Your task to perform on an android device: set default search engine in the chrome app Image 0: 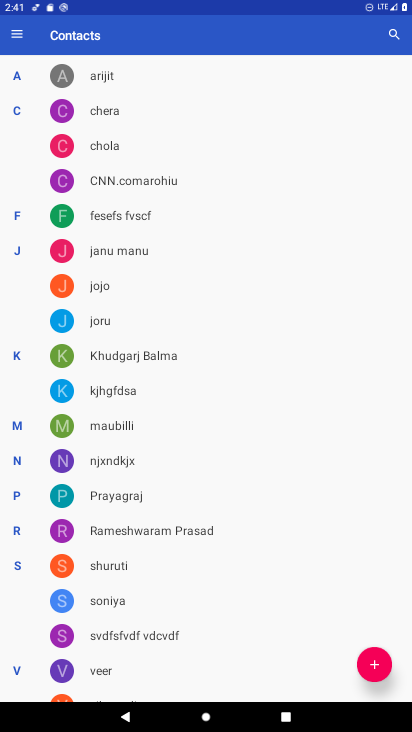
Step 0: press home button
Your task to perform on an android device: set default search engine in the chrome app Image 1: 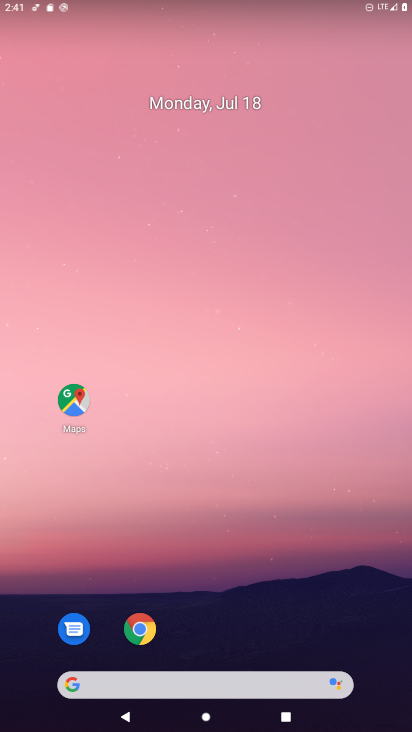
Step 1: drag from (172, 519) to (190, 264)
Your task to perform on an android device: set default search engine in the chrome app Image 2: 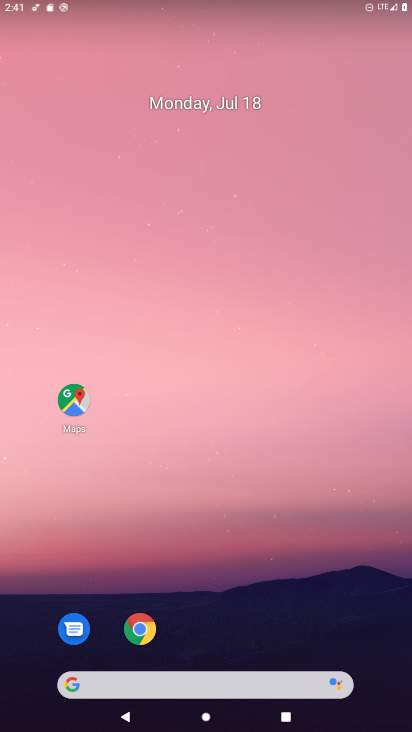
Step 2: drag from (205, 668) to (180, 308)
Your task to perform on an android device: set default search engine in the chrome app Image 3: 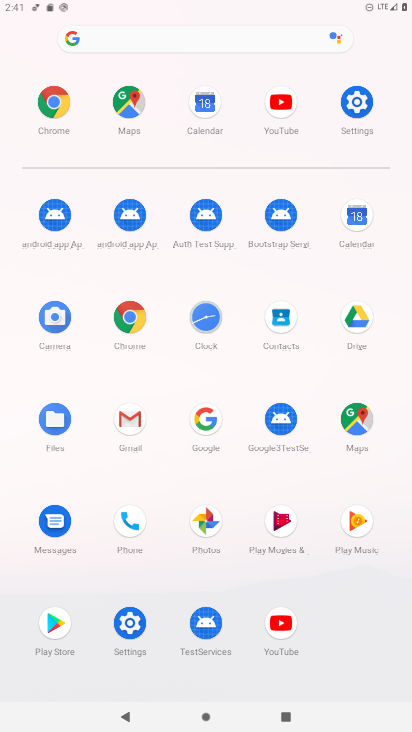
Step 3: click (123, 321)
Your task to perform on an android device: set default search engine in the chrome app Image 4: 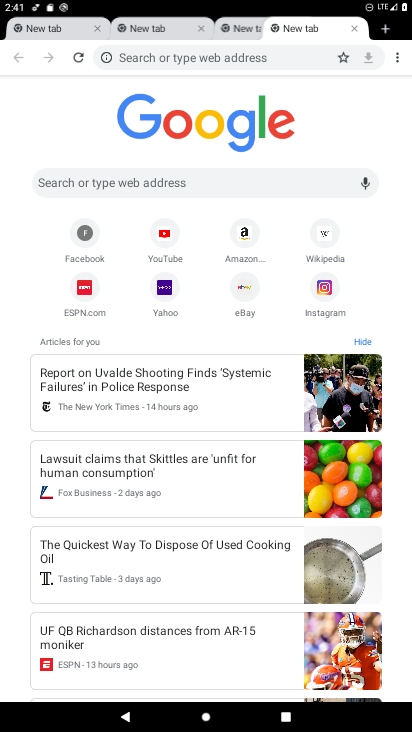
Step 4: click (394, 59)
Your task to perform on an android device: set default search engine in the chrome app Image 5: 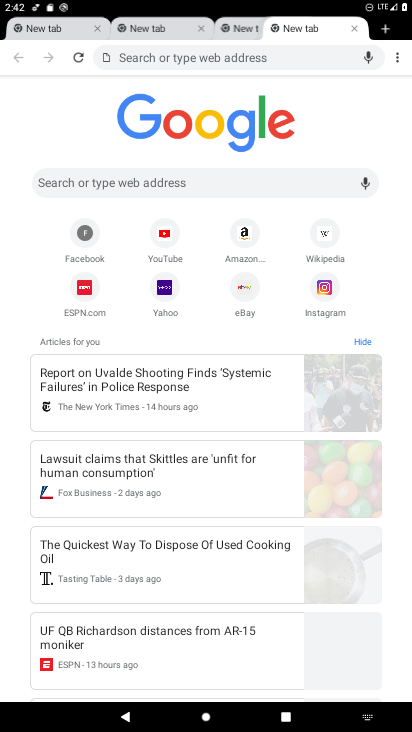
Step 5: click (395, 60)
Your task to perform on an android device: set default search engine in the chrome app Image 6: 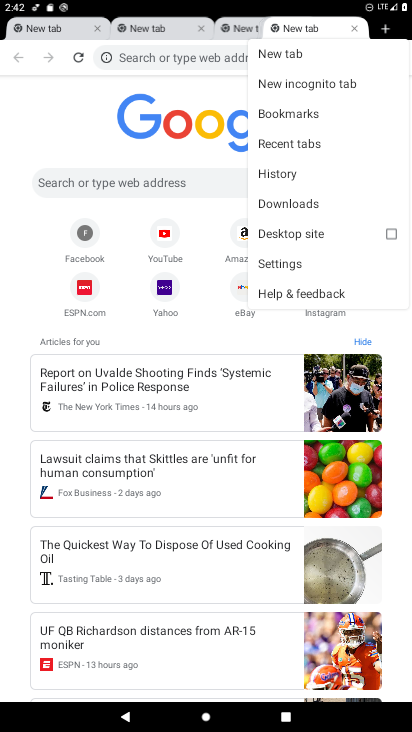
Step 6: click (395, 60)
Your task to perform on an android device: set default search engine in the chrome app Image 7: 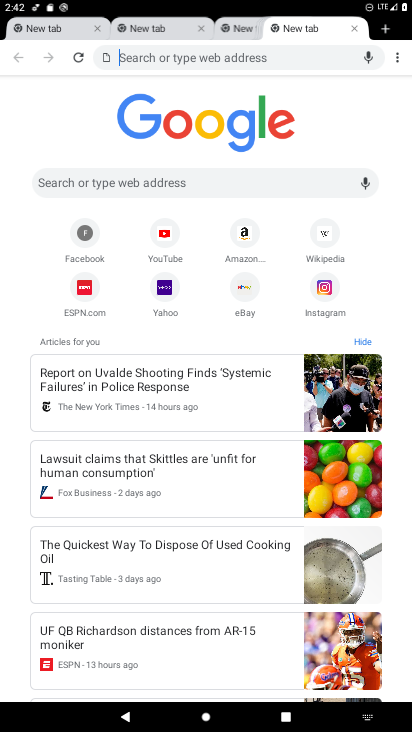
Step 7: click (393, 57)
Your task to perform on an android device: set default search engine in the chrome app Image 8: 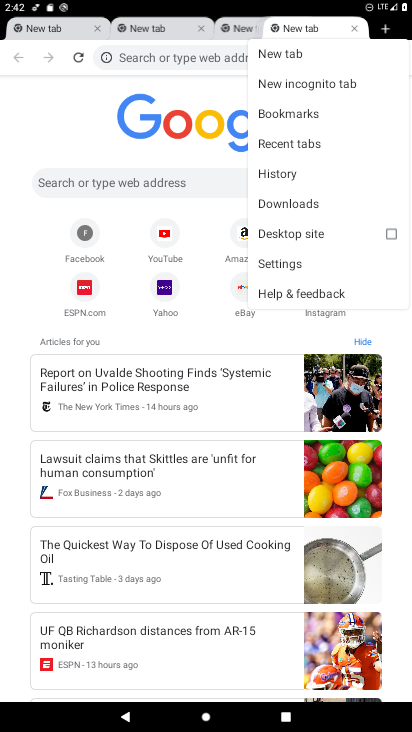
Step 8: click (268, 261)
Your task to perform on an android device: set default search engine in the chrome app Image 9: 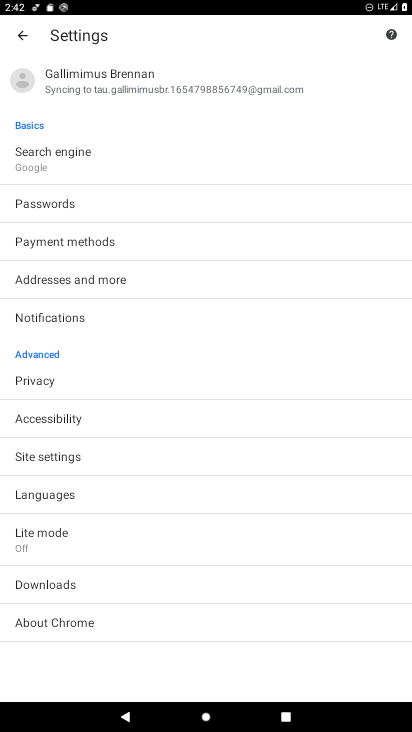
Step 9: click (46, 163)
Your task to perform on an android device: set default search engine in the chrome app Image 10: 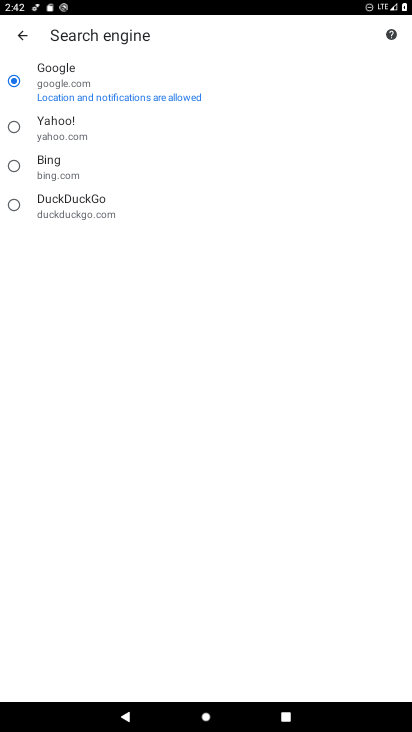
Step 10: task complete